Your task to perform on an android device: toggle translation in the chrome app Image 0: 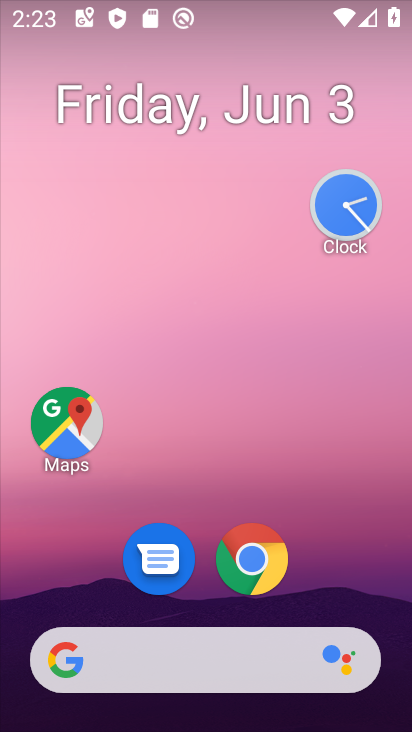
Step 0: press home button
Your task to perform on an android device: toggle translation in the chrome app Image 1: 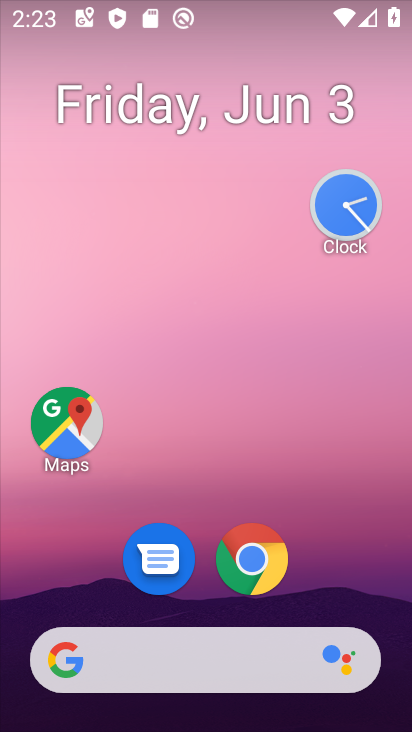
Step 1: click (270, 547)
Your task to perform on an android device: toggle translation in the chrome app Image 2: 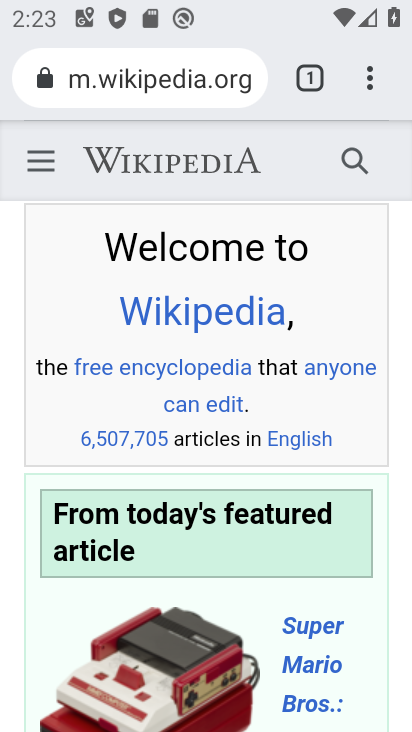
Step 2: click (374, 73)
Your task to perform on an android device: toggle translation in the chrome app Image 3: 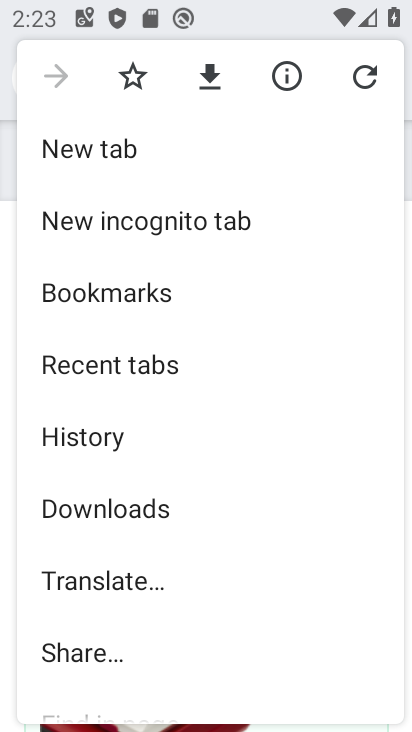
Step 3: drag from (256, 599) to (256, 392)
Your task to perform on an android device: toggle translation in the chrome app Image 4: 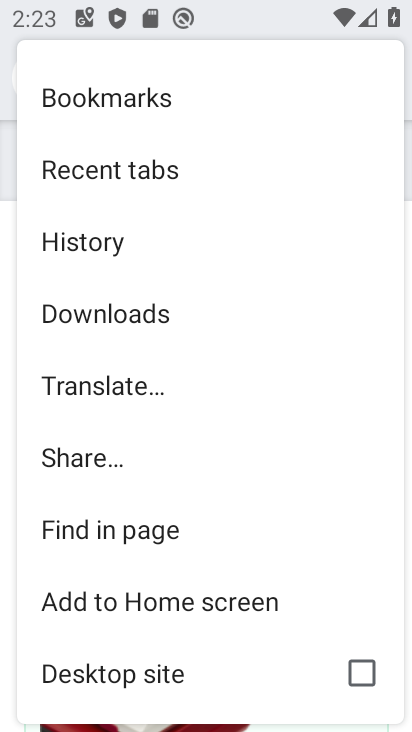
Step 4: drag from (187, 553) to (203, 388)
Your task to perform on an android device: toggle translation in the chrome app Image 5: 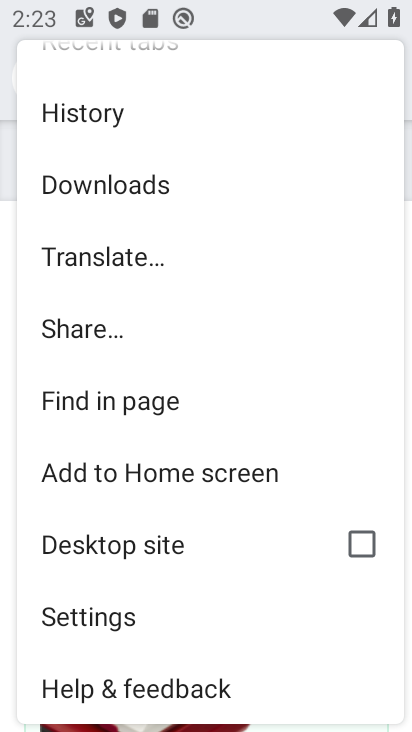
Step 5: click (138, 609)
Your task to perform on an android device: toggle translation in the chrome app Image 6: 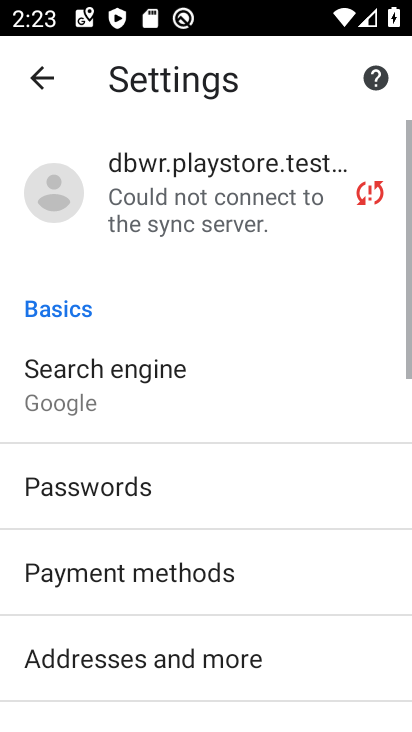
Step 6: click (138, 609)
Your task to perform on an android device: toggle translation in the chrome app Image 7: 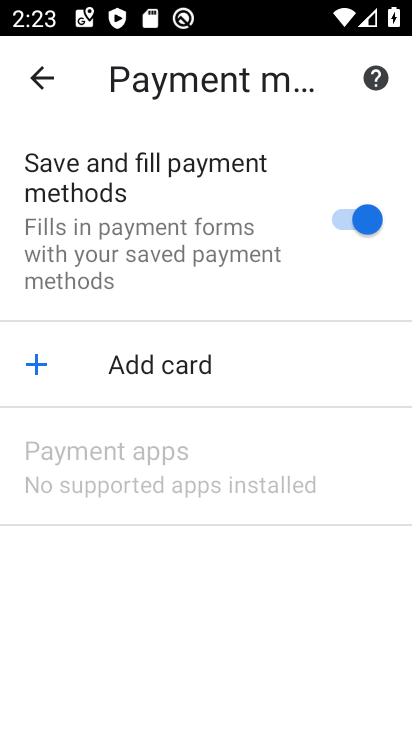
Step 7: click (65, 76)
Your task to perform on an android device: toggle translation in the chrome app Image 8: 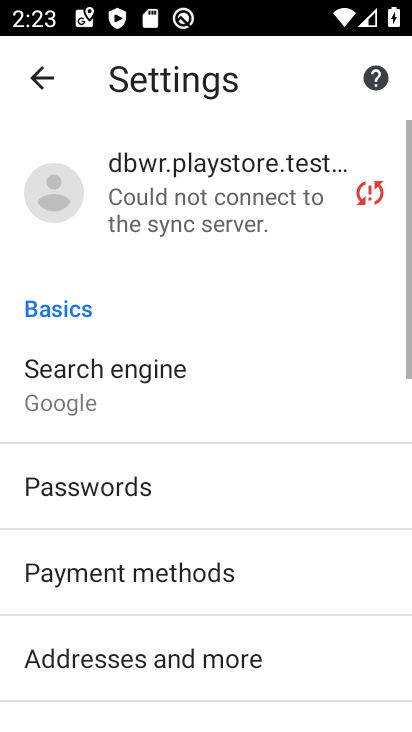
Step 8: drag from (254, 553) to (239, 163)
Your task to perform on an android device: toggle translation in the chrome app Image 9: 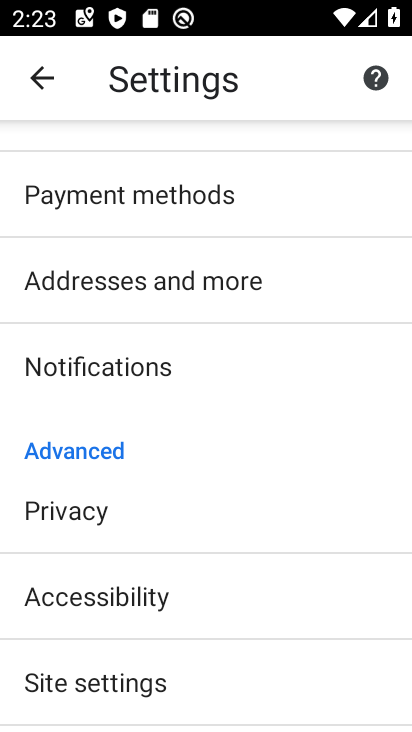
Step 9: drag from (220, 645) to (220, 358)
Your task to perform on an android device: toggle translation in the chrome app Image 10: 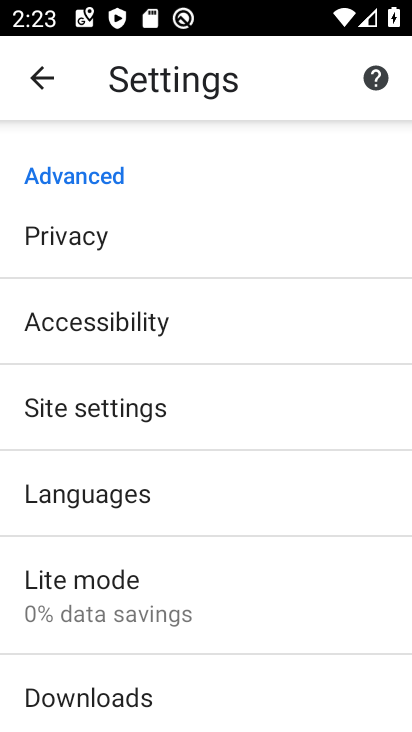
Step 10: click (170, 496)
Your task to perform on an android device: toggle translation in the chrome app Image 11: 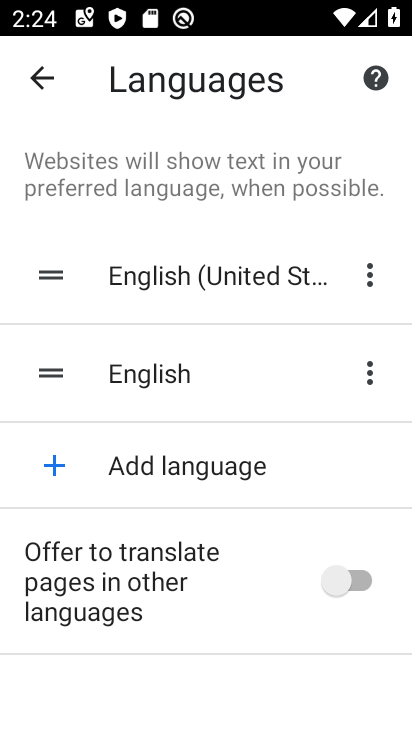
Step 11: click (355, 581)
Your task to perform on an android device: toggle translation in the chrome app Image 12: 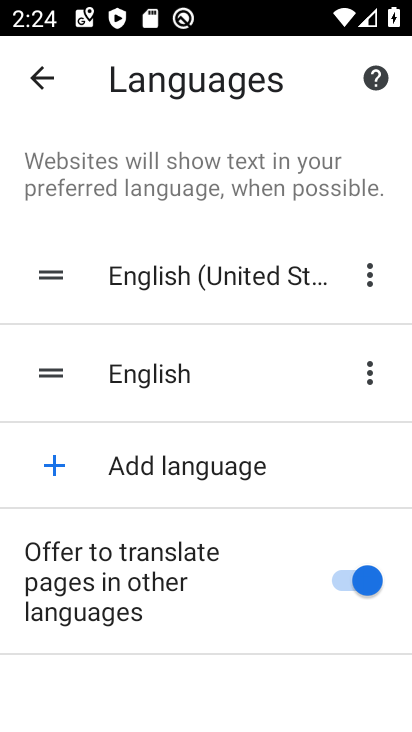
Step 12: task complete